Your task to perform on an android device: Open maps Image 0: 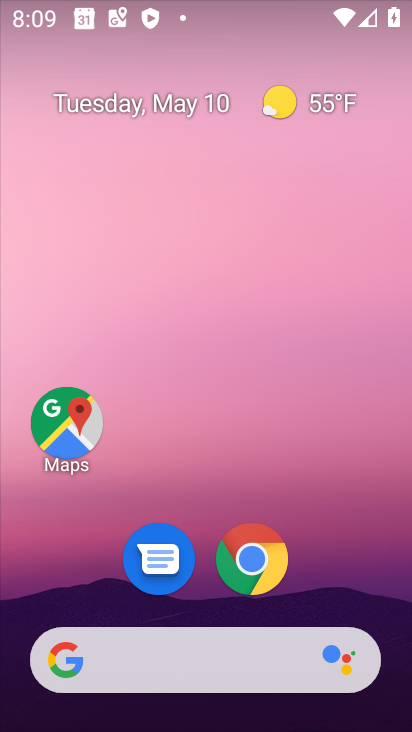
Step 0: drag from (200, 726) to (190, 61)
Your task to perform on an android device: Open maps Image 1: 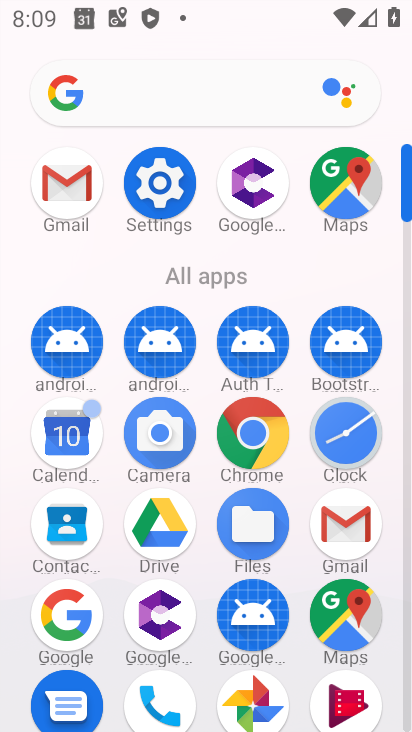
Step 1: click (343, 614)
Your task to perform on an android device: Open maps Image 2: 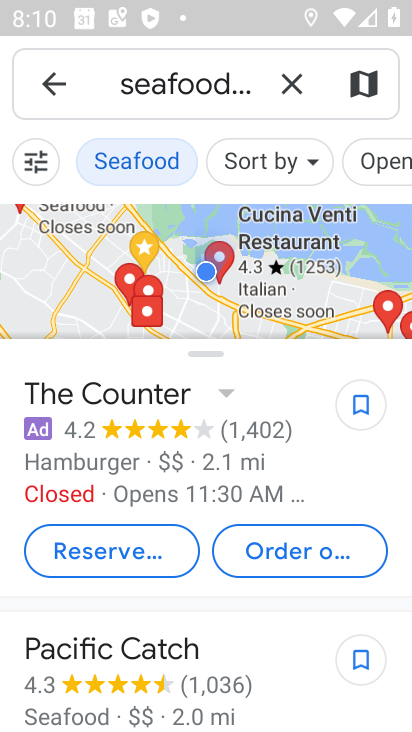
Step 2: task complete